Your task to perform on an android device: allow cookies in the chrome app Image 0: 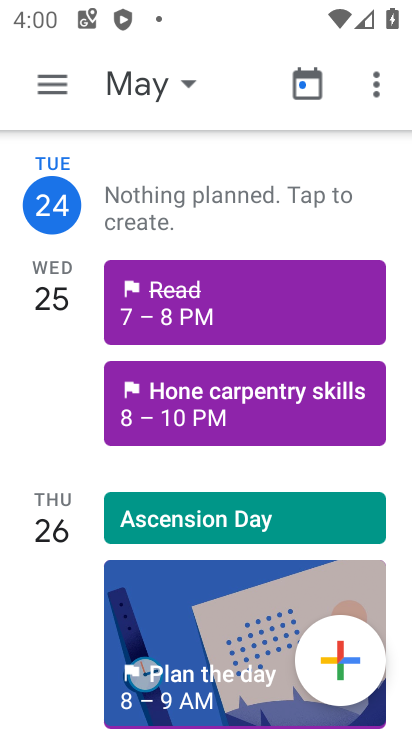
Step 0: press home button
Your task to perform on an android device: allow cookies in the chrome app Image 1: 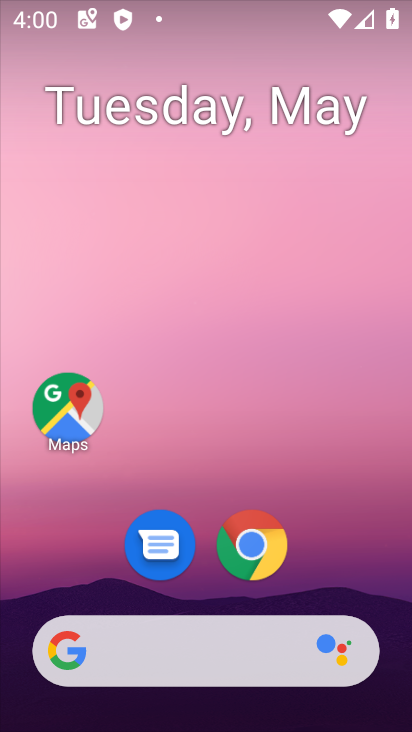
Step 1: click (255, 544)
Your task to perform on an android device: allow cookies in the chrome app Image 2: 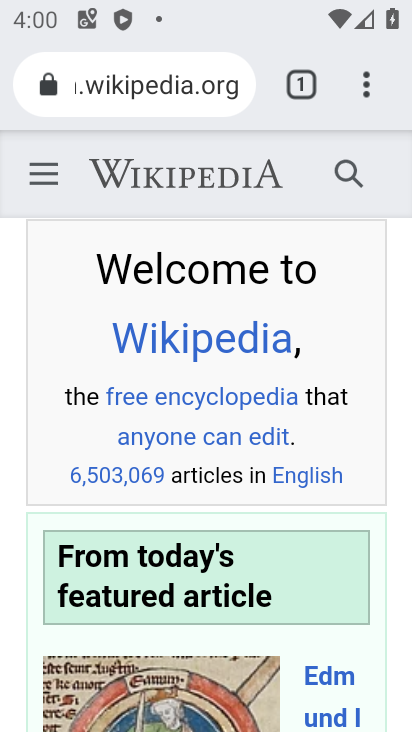
Step 2: click (367, 82)
Your task to perform on an android device: allow cookies in the chrome app Image 3: 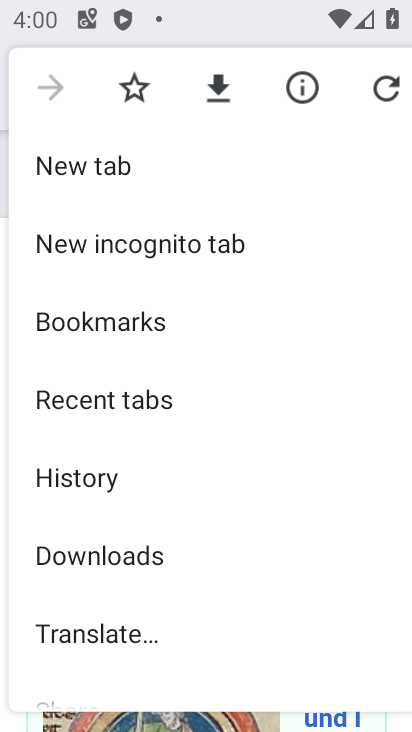
Step 3: drag from (153, 510) to (154, 368)
Your task to perform on an android device: allow cookies in the chrome app Image 4: 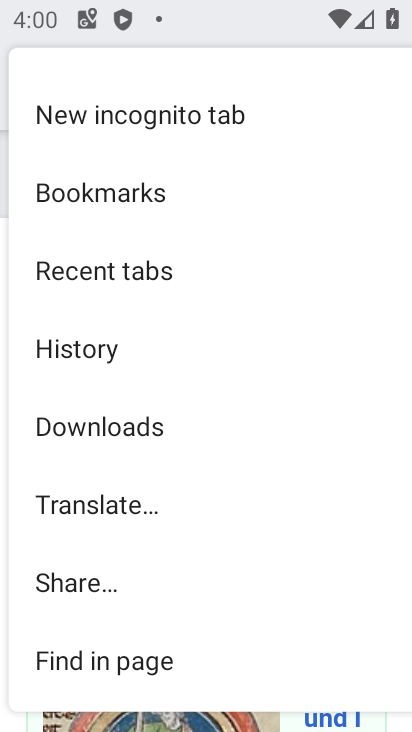
Step 4: drag from (126, 543) to (180, 417)
Your task to perform on an android device: allow cookies in the chrome app Image 5: 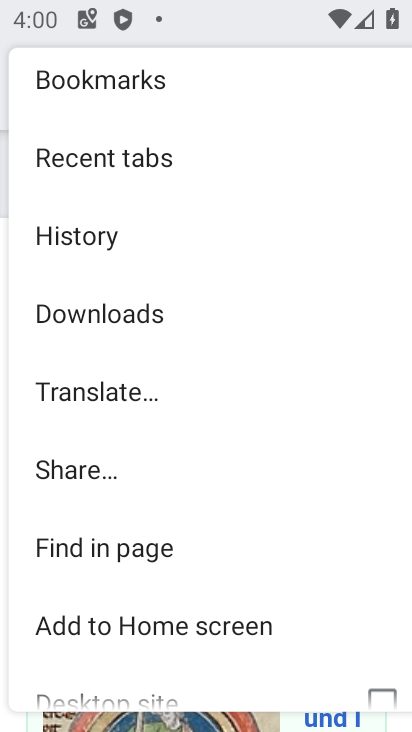
Step 5: drag from (126, 509) to (169, 397)
Your task to perform on an android device: allow cookies in the chrome app Image 6: 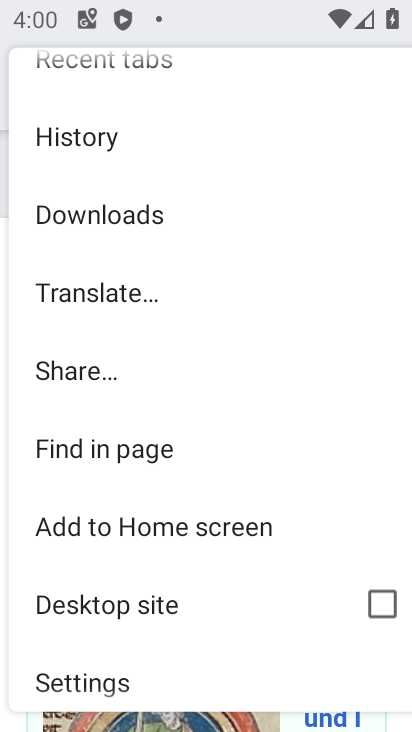
Step 6: drag from (117, 558) to (215, 406)
Your task to perform on an android device: allow cookies in the chrome app Image 7: 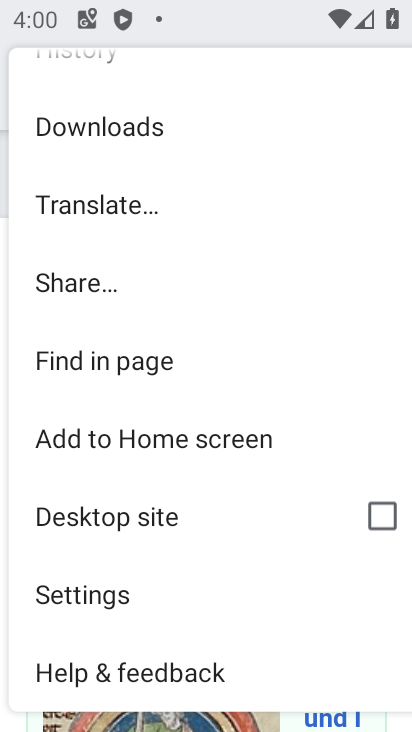
Step 7: click (96, 593)
Your task to perform on an android device: allow cookies in the chrome app Image 8: 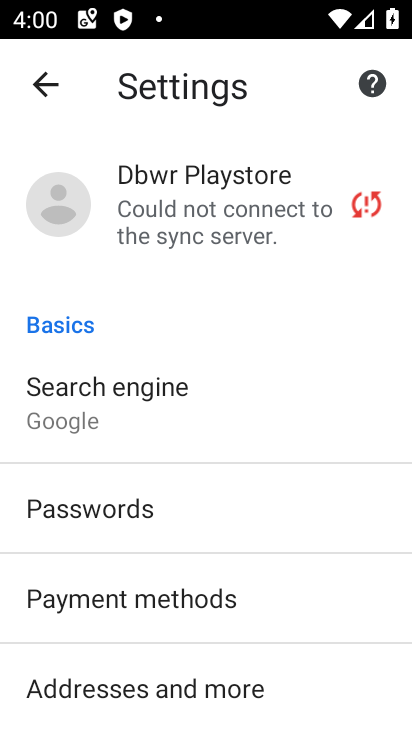
Step 8: drag from (121, 535) to (181, 443)
Your task to perform on an android device: allow cookies in the chrome app Image 9: 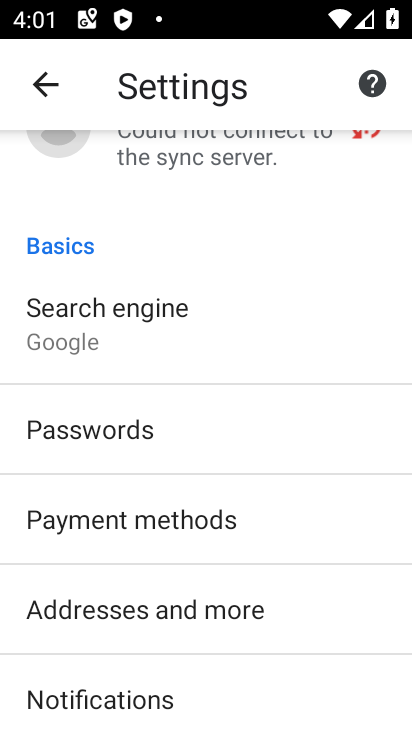
Step 9: drag from (223, 535) to (261, 407)
Your task to perform on an android device: allow cookies in the chrome app Image 10: 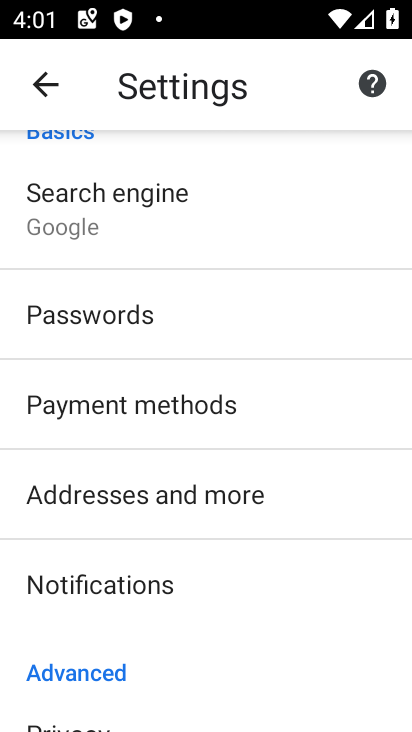
Step 10: drag from (185, 599) to (240, 465)
Your task to perform on an android device: allow cookies in the chrome app Image 11: 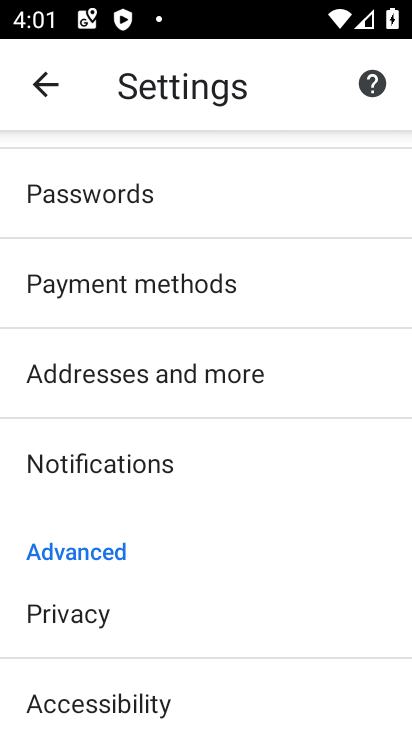
Step 11: drag from (175, 577) to (213, 474)
Your task to perform on an android device: allow cookies in the chrome app Image 12: 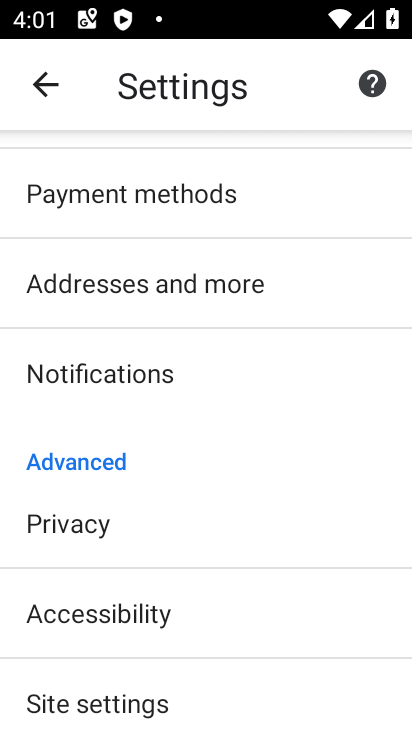
Step 12: drag from (140, 566) to (197, 460)
Your task to perform on an android device: allow cookies in the chrome app Image 13: 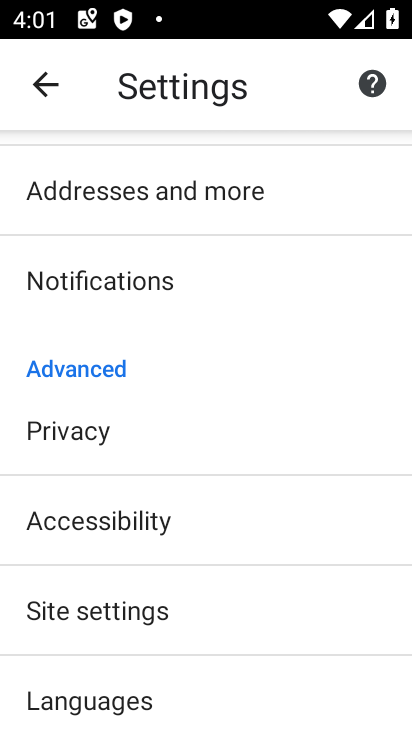
Step 13: click (166, 616)
Your task to perform on an android device: allow cookies in the chrome app Image 14: 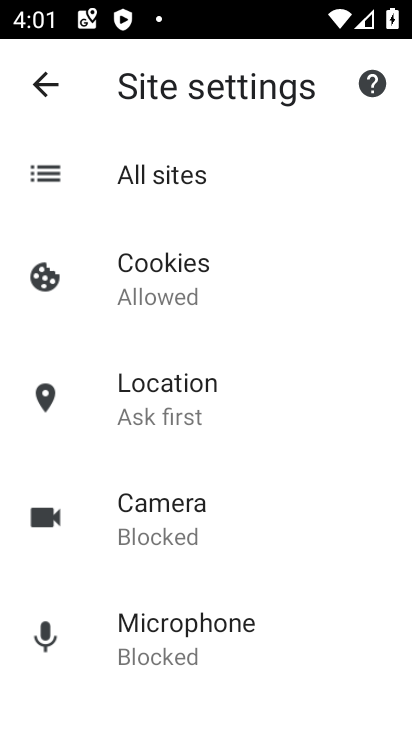
Step 14: click (209, 278)
Your task to perform on an android device: allow cookies in the chrome app Image 15: 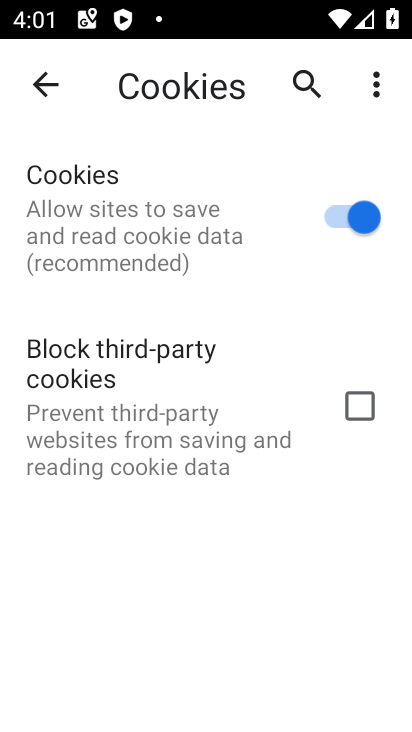
Step 15: click (369, 411)
Your task to perform on an android device: allow cookies in the chrome app Image 16: 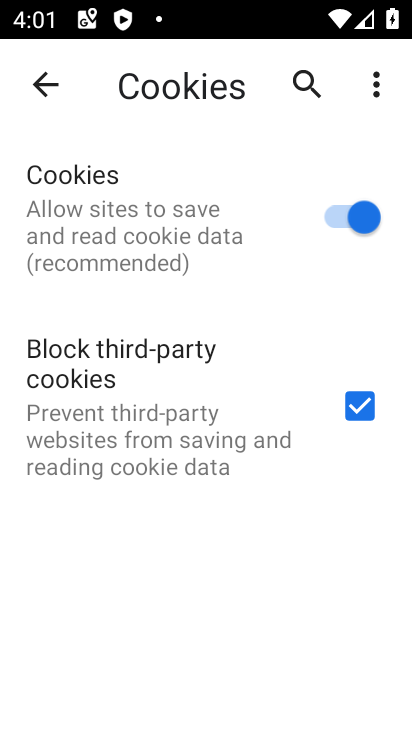
Step 16: task complete